Your task to perform on an android device: Open wifi settings Image 0: 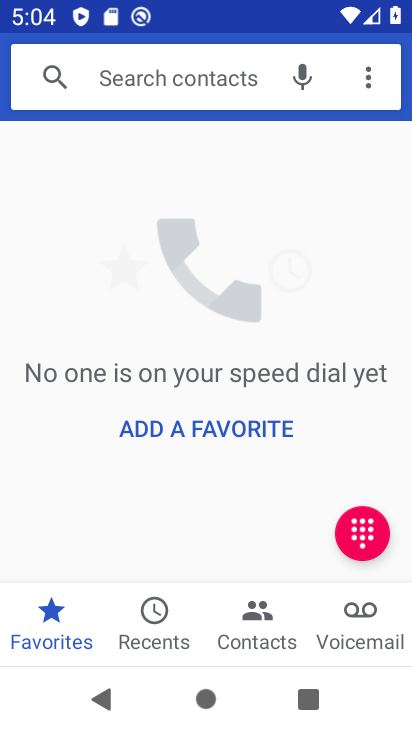
Step 0: press home button
Your task to perform on an android device: Open wifi settings Image 1: 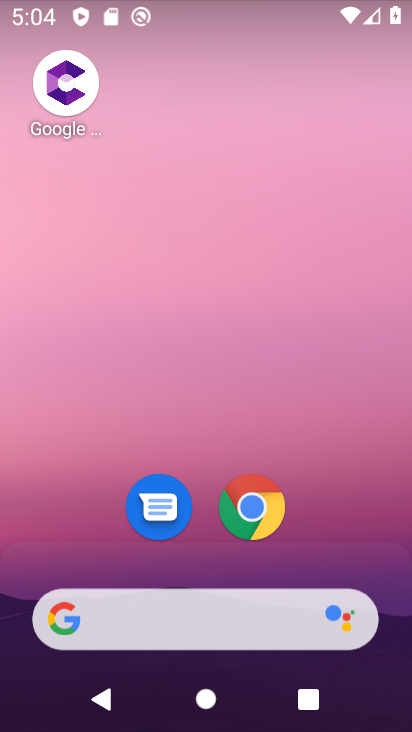
Step 1: drag from (304, 556) to (267, 193)
Your task to perform on an android device: Open wifi settings Image 2: 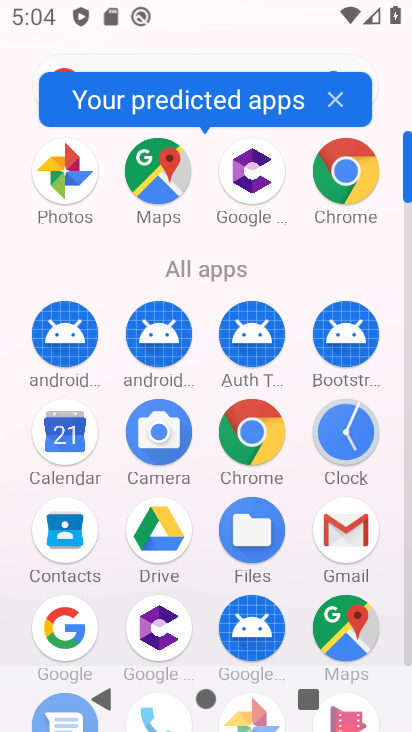
Step 2: drag from (251, 577) to (245, 243)
Your task to perform on an android device: Open wifi settings Image 3: 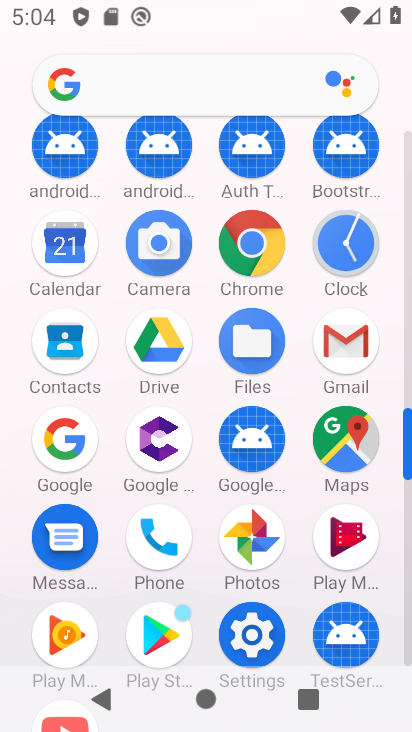
Step 3: click (243, 618)
Your task to perform on an android device: Open wifi settings Image 4: 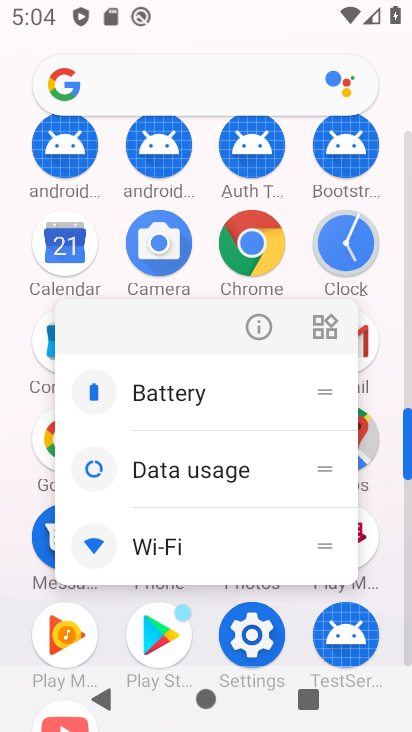
Step 4: click (253, 622)
Your task to perform on an android device: Open wifi settings Image 5: 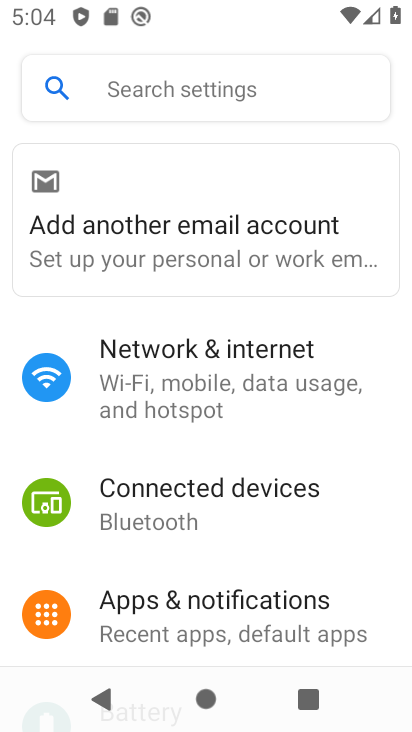
Step 5: click (189, 375)
Your task to perform on an android device: Open wifi settings Image 6: 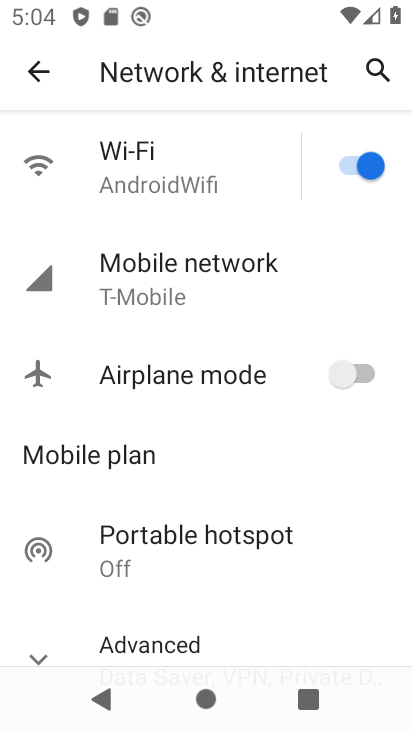
Step 6: click (152, 179)
Your task to perform on an android device: Open wifi settings Image 7: 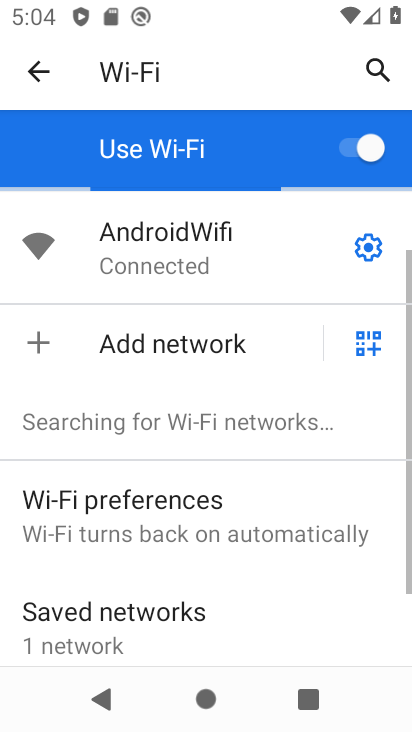
Step 7: task complete